Your task to perform on an android device: uninstall "PUBG MOBILE" Image 0: 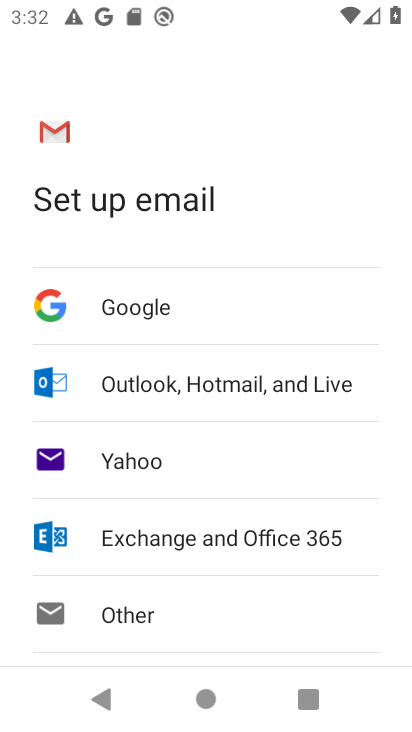
Step 0: task impossible